Your task to perform on an android device: turn off picture-in-picture Image 0: 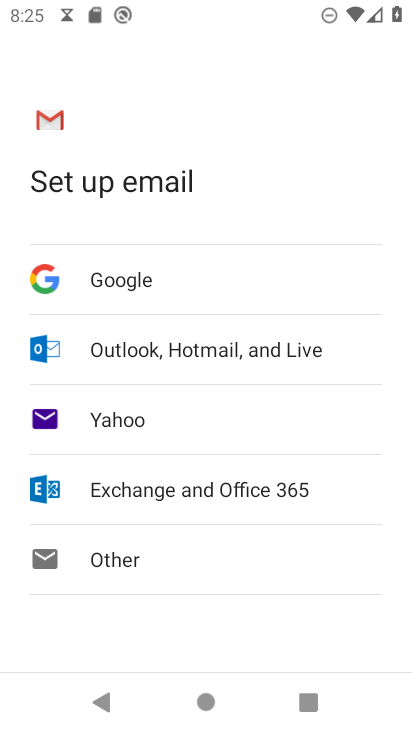
Step 0: press home button
Your task to perform on an android device: turn off picture-in-picture Image 1: 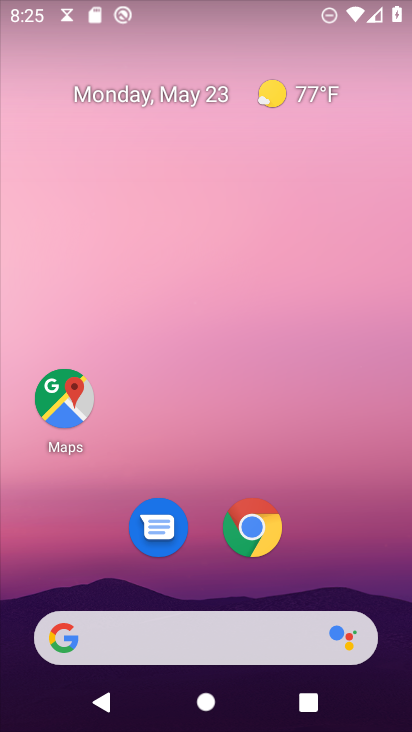
Step 1: drag from (252, 659) to (175, 158)
Your task to perform on an android device: turn off picture-in-picture Image 2: 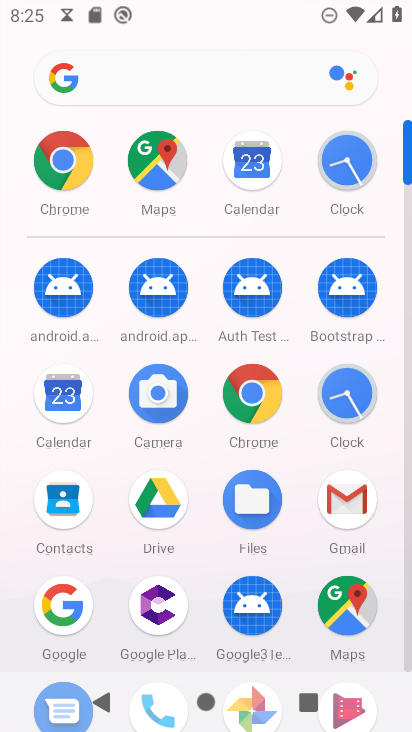
Step 2: drag from (208, 542) to (209, 297)
Your task to perform on an android device: turn off picture-in-picture Image 3: 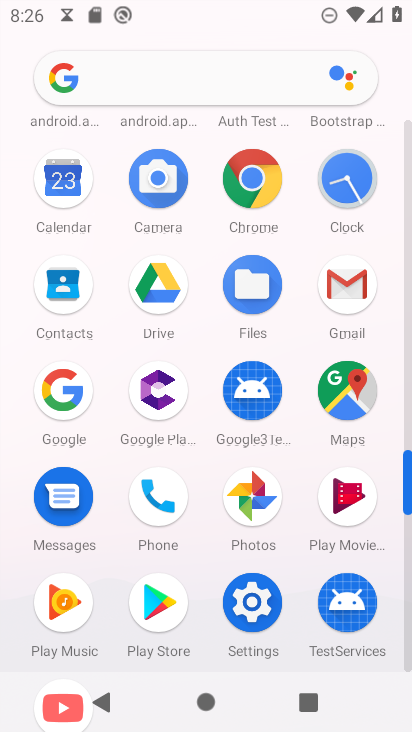
Step 3: click (266, 604)
Your task to perform on an android device: turn off picture-in-picture Image 4: 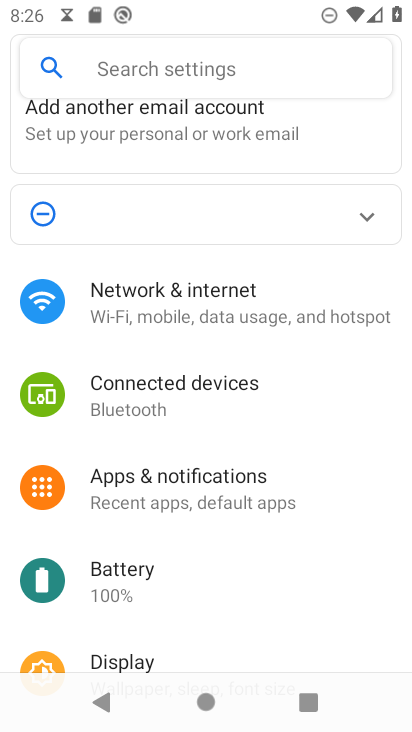
Step 4: click (191, 77)
Your task to perform on an android device: turn off picture-in-picture Image 5: 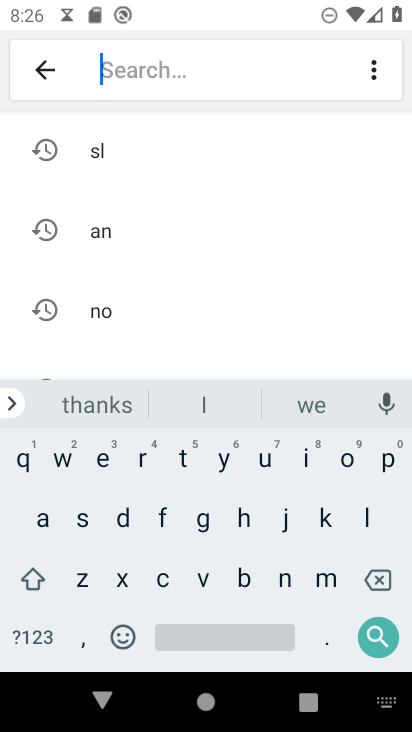
Step 5: click (384, 461)
Your task to perform on an android device: turn off picture-in-picture Image 6: 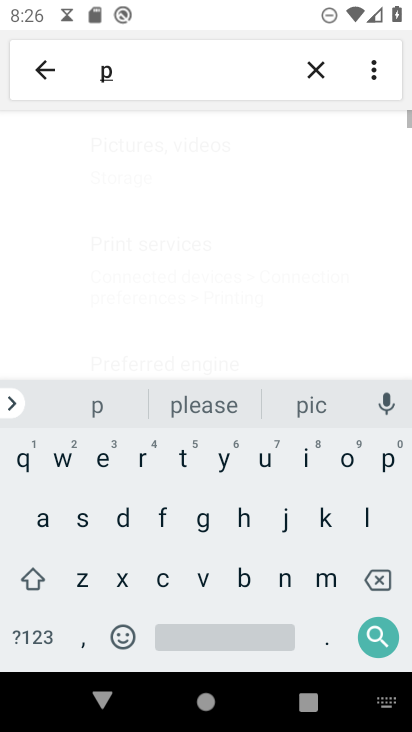
Step 6: click (302, 469)
Your task to perform on an android device: turn off picture-in-picture Image 7: 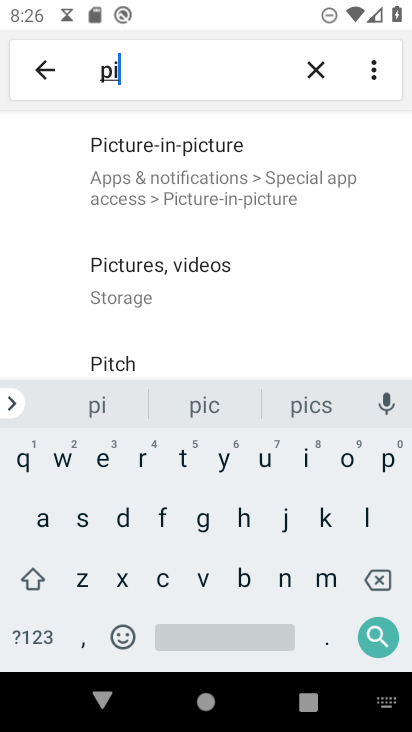
Step 7: click (234, 169)
Your task to perform on an android device: turn off picture-in-picture Image 8: 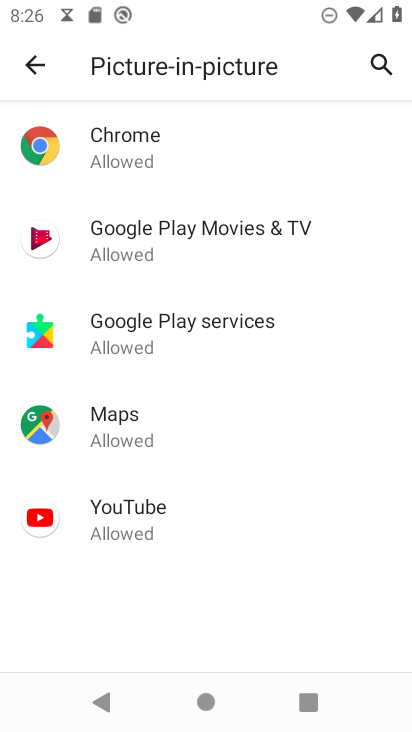
Step 8: task complete